Your task to perform on an android device: turn off airplane mode Image 0: 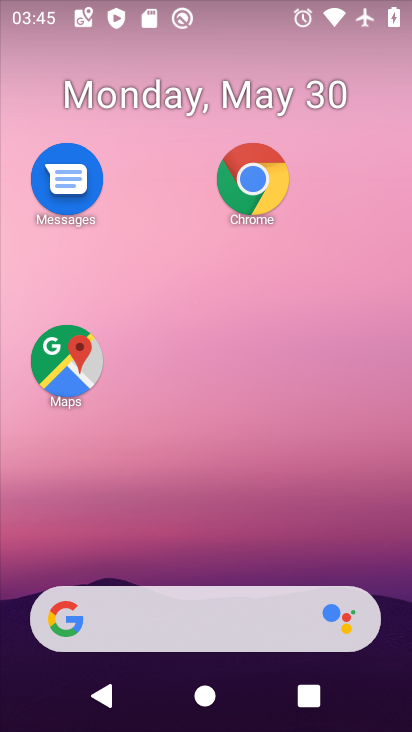
Step 0: drag from (191, 560) to (213, 50)
Your task to perform on an android device: turn off airplane mode Image 1: 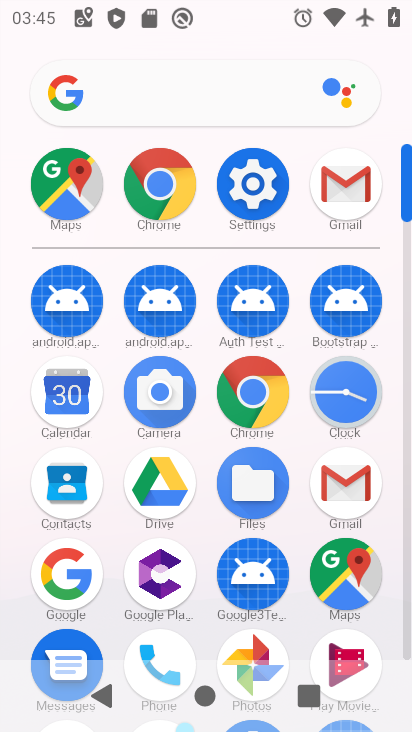
Step 1: click (248, 192)
Your task to perform on an android device: turn off airplane mode Image 2: 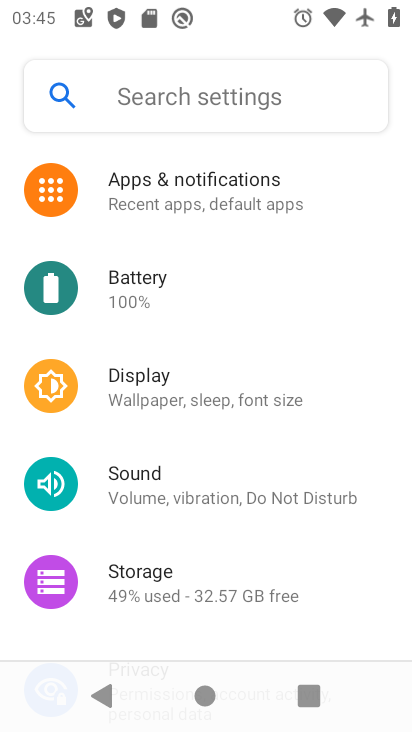
Step 2: drag from (204, 240) to (216, 567)
Your task to perform on an android device: turn off airplane mode Image 3: 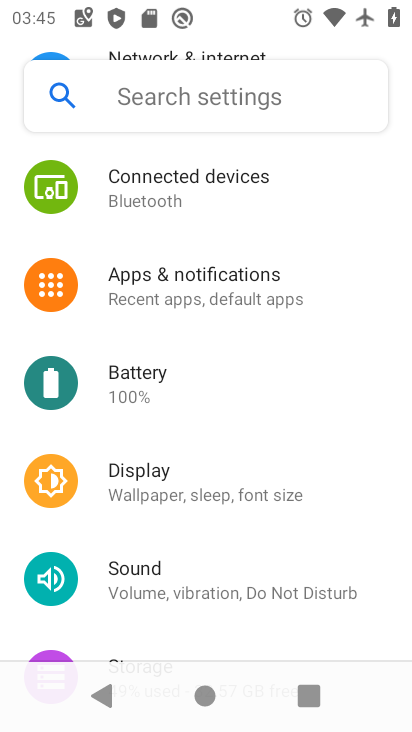
Step 3: drag from (217, 295) to (264, 548)
Your task to perform on an android device: turn off airplane mode Image 4: 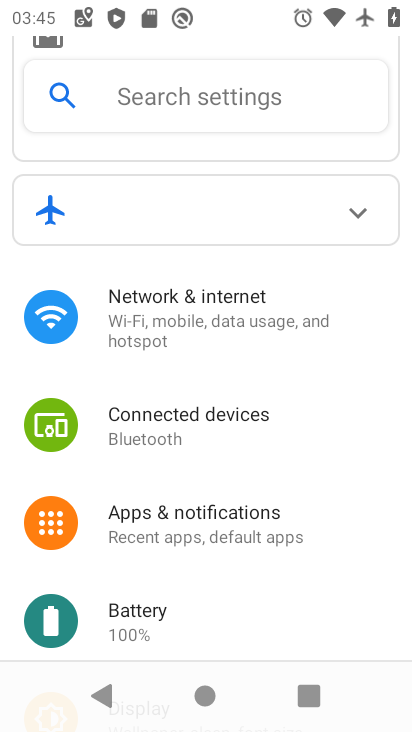
Step 4: click (353, 212)
Your task to perform on an android device: turn off airplane mode Image 5: 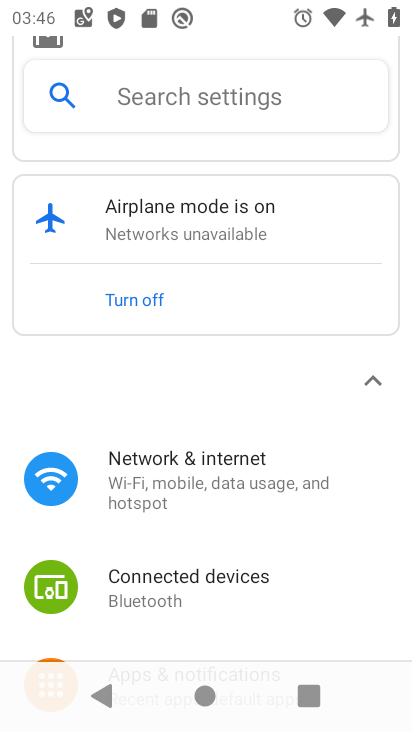
Step 5: click (127, 301)
Your task to perform on an android device: turn off airplane mode Image 6: 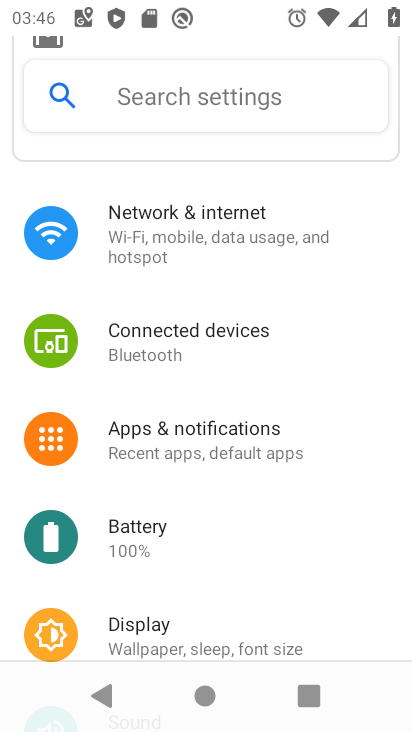
Step 6: task complete